Your task to perform on an android device: turn off wifi Image 0: 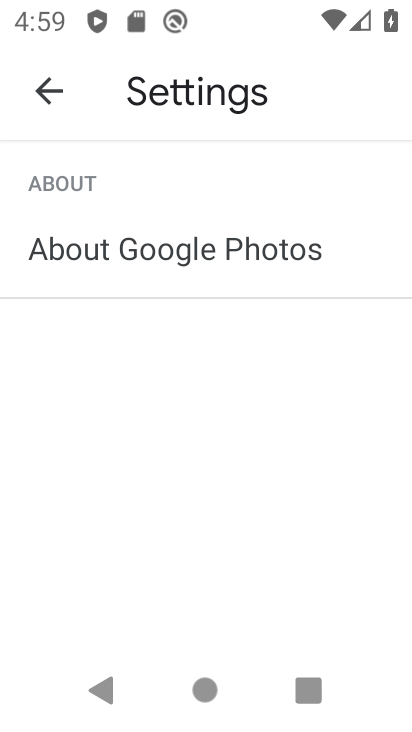
Step 0: press back button
Your task to perform on an android device: turn off wifi Image 1: 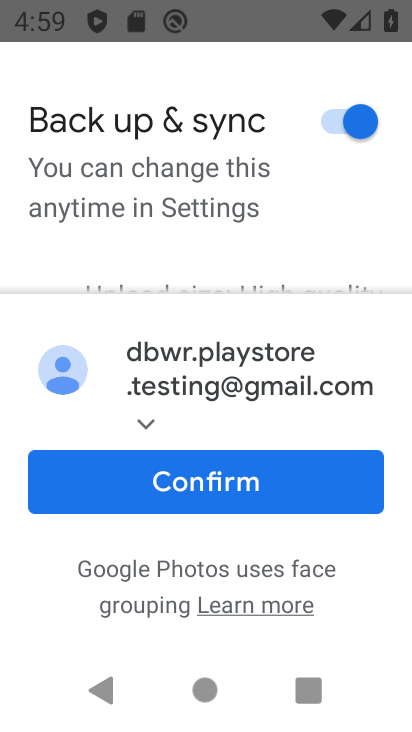
Step 1: press back button
Your task to perform on an android device: turn off wifi Image 2: 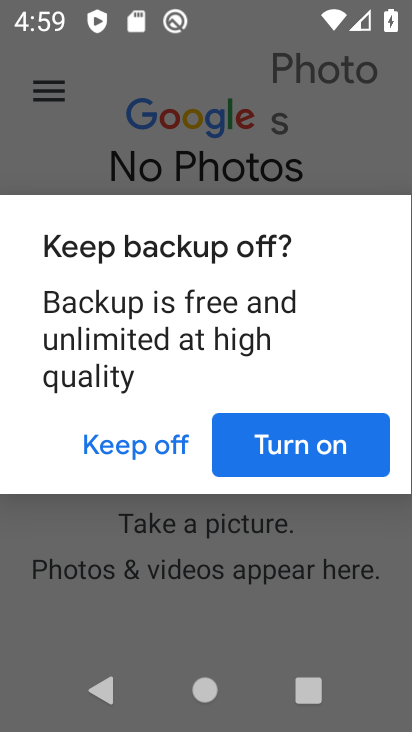
Step 2: press home button
Your task to perform on an android device: turn off wifi Image 3: 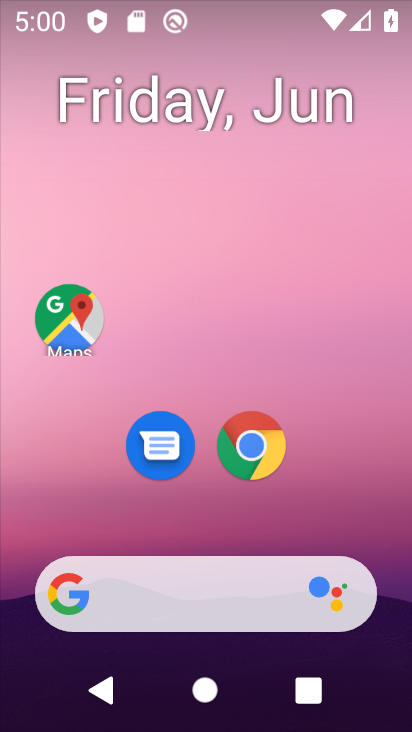
Step 3: drag from (389, 579) to (332, 73)
Your task to perform on an android device: turn off wifi Image 4: 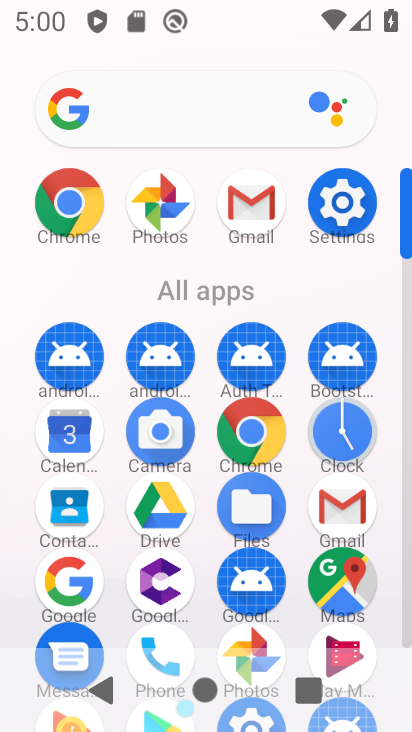
Step 4: click (340, 199)
Your task to perform on an android device: turn off wifi Image 5: 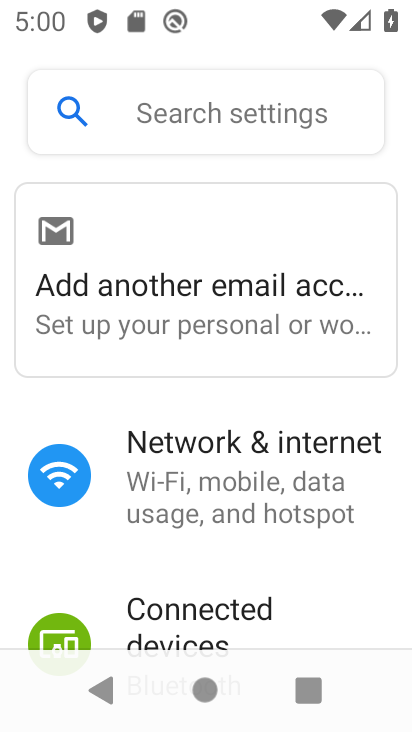
Step 5: click (230, 471)
Your task to perform on an android device: turn off wifi Image 6: 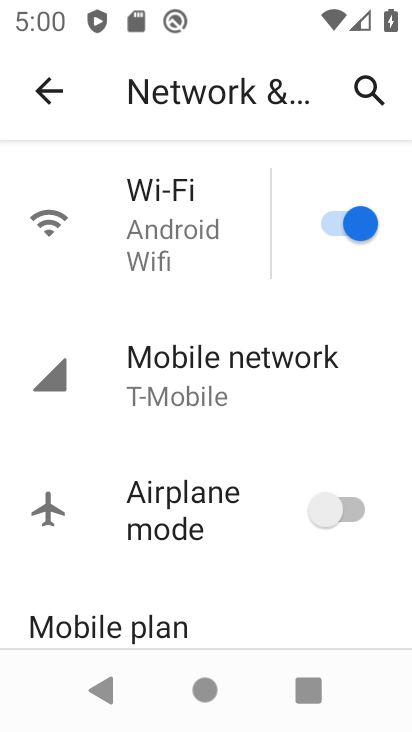
Step 6: click (325, 212)
Your task to perform on an android device: turn off wifi Image 7: 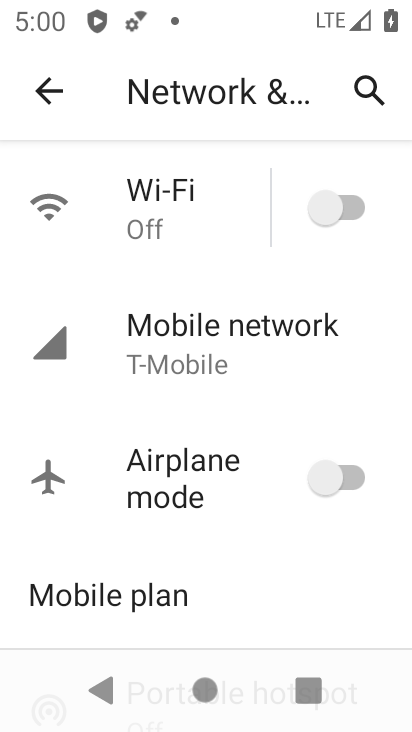
Step 7: task complete